Your task to perform on an android device: What's the weather today? Image 0: 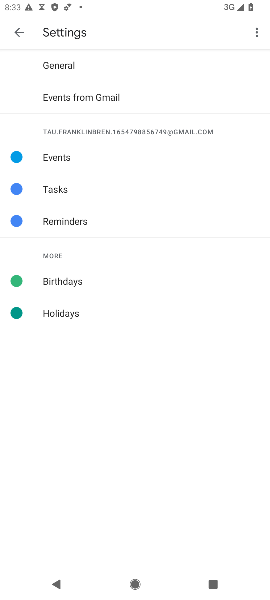
Step 0: press back button
Your task to perform on an android device: What's the weather today? Image 1: 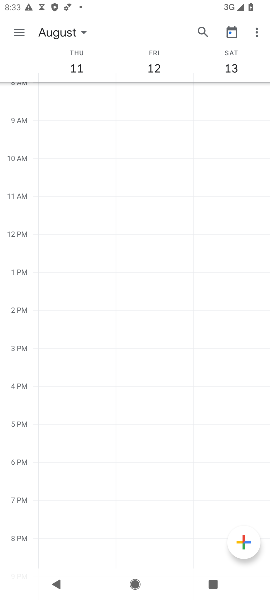
Step 1: press home button
Your task to perform on an android device: What's the weather today? Image 2: 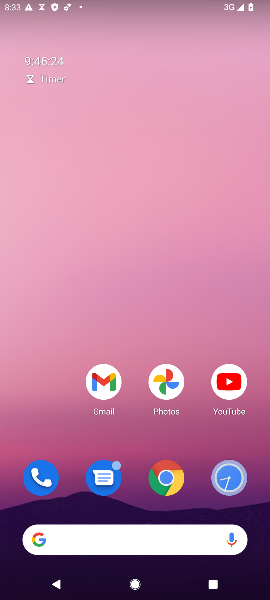
Step 2: drag from (195, 335) to (168, 0)
Your task to perform on an android device: What's the weather today? Image 3: 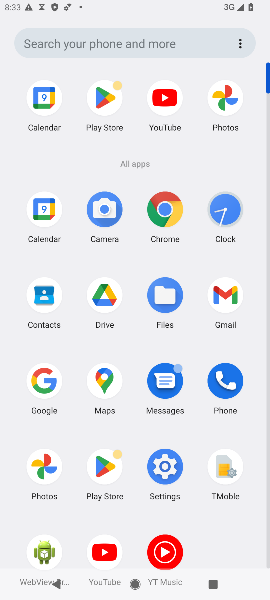
Step 3: click (158, 197)
Your task to perform on an android device: What's the weather today? Image 4: 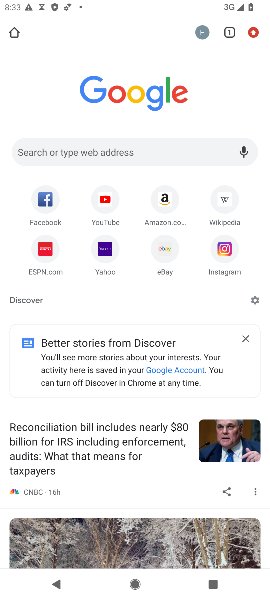
Step 4: click (199, 162)
Your task to perform on an android device: What's the weather today? Image 5: 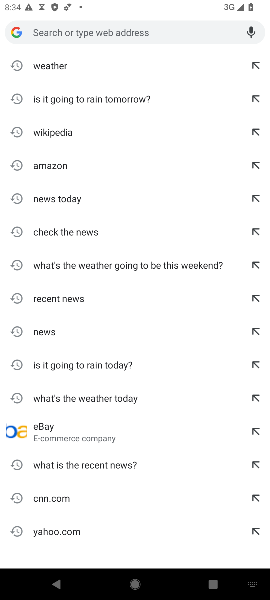
Step 5: type "What's the weather today?"
Your task to perform on an android device: What's the weather today? Image 6: 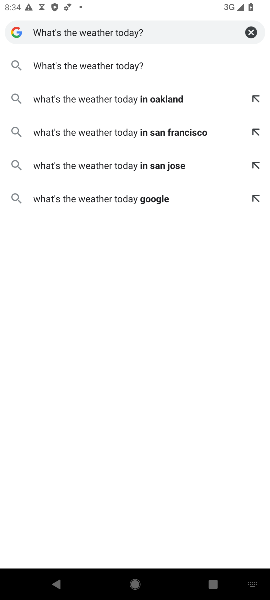
Step 6: click (148, 65)
Your task to perform on an android device: What's the weather today? Image 7: 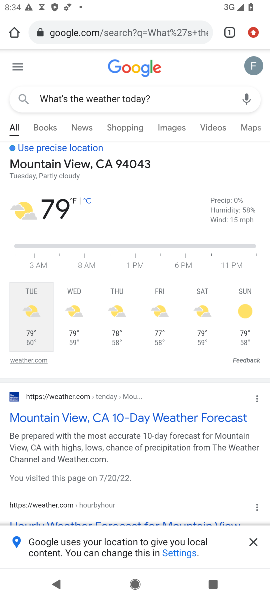
Step 7: task complete